Your task to perform on an android device: turn on notifications settings in the gmail app Image 0: 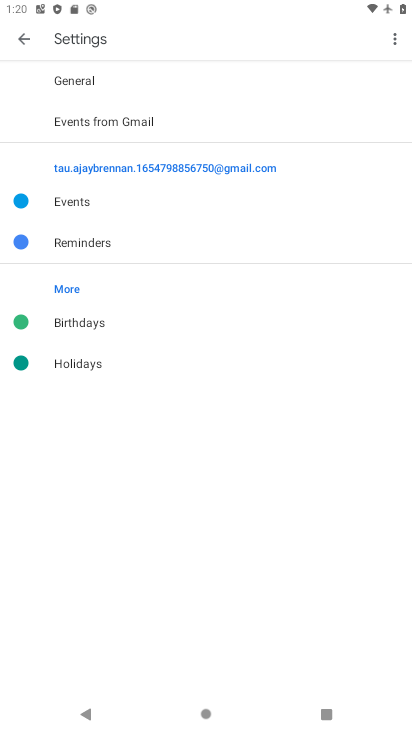
Step 0: press home button
Your task to perform on an android device: turn on notifications settings in the gmail app Image 1: 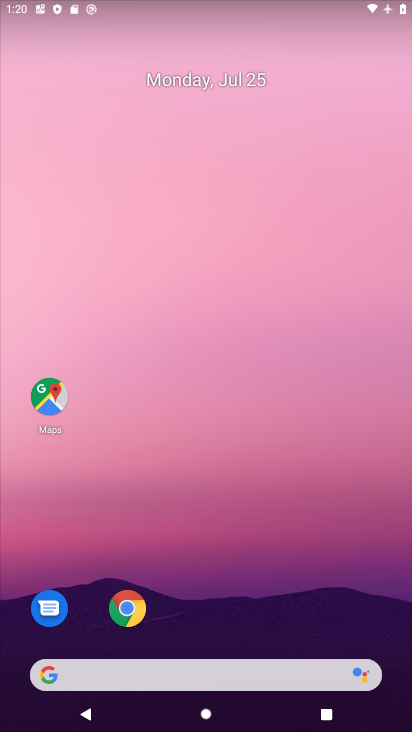
Step 1: drag from (254, 674) to (401, 250)
Your task to perform on an android device: turn on notifications settings in the gmail app Image 2: 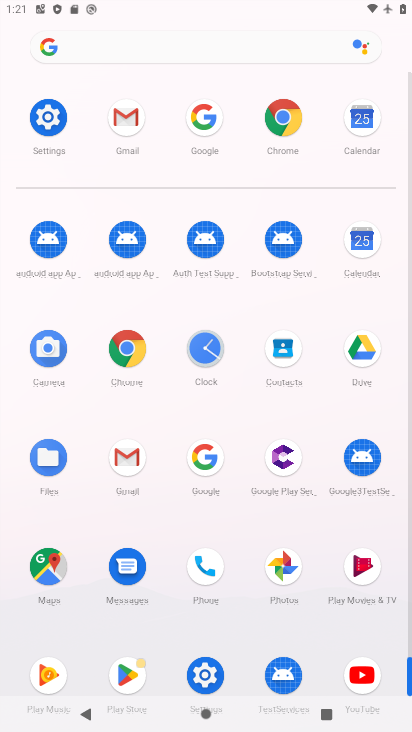
Step 2: click (136, 462)
Your task to perform on an android device: turn on notifications settings in the gmail app Image 3: 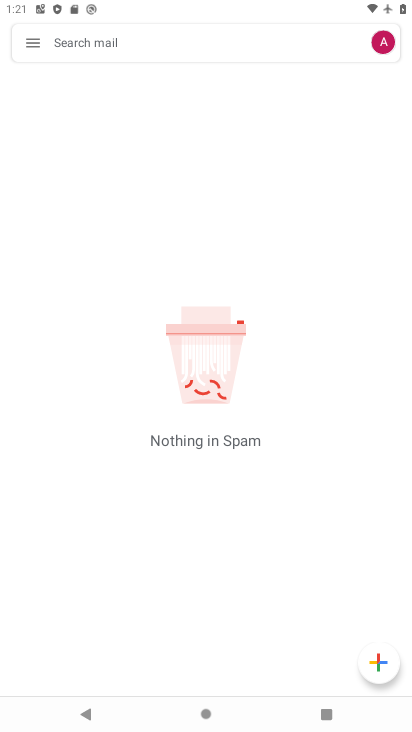
Step 3: click (28, 59)
Your task to perform on an android device: turn on notifications settings in the gmail app Image 4: 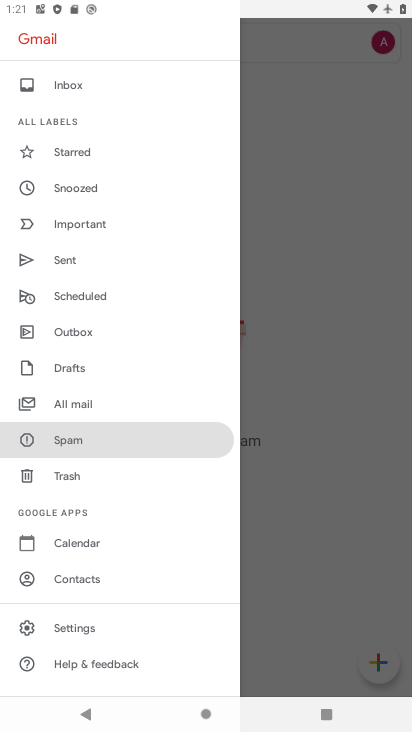
Step 4: click (90, 624)
Your task to perform on an android device: turn on notifications settings in the gmail app Image 5: 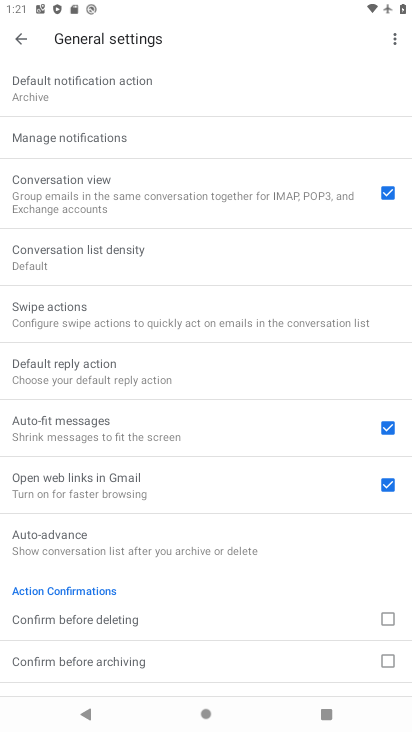
Step 5: click (134, 133)
Your task to perform on an android device: turn on notifications settings in the gmail app Image 6: 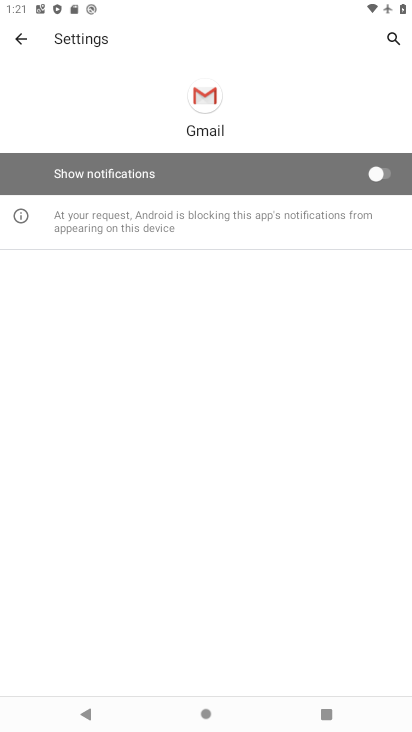
Step 6: click (388, 172)
Your task to perform on an android device: turn on notifications settings in the gmail app Image 7: 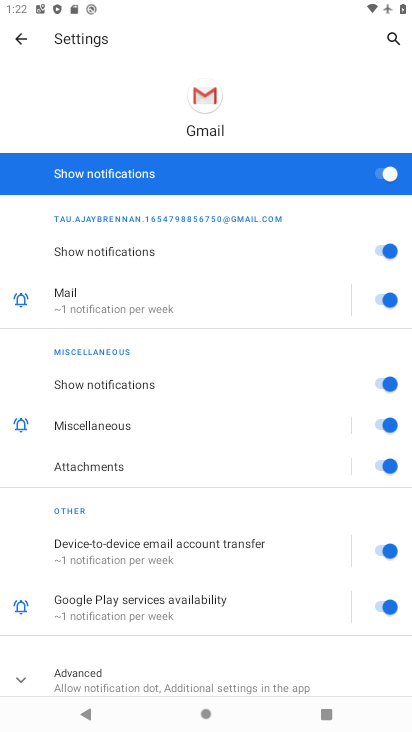
Step 7: task complete